Your task to perform on an android device: Is it going to rain this weekend? Image 0: 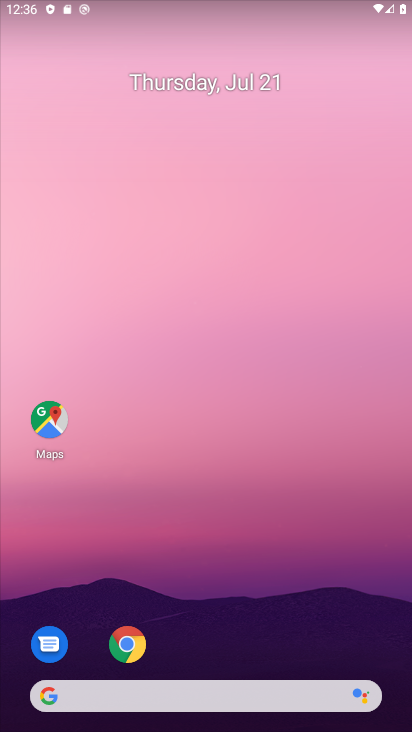
Step 0: drag from (266, 627) to (315, 1)
Your task to perform on an android device: Is it going to rain this weekend? Image 1: 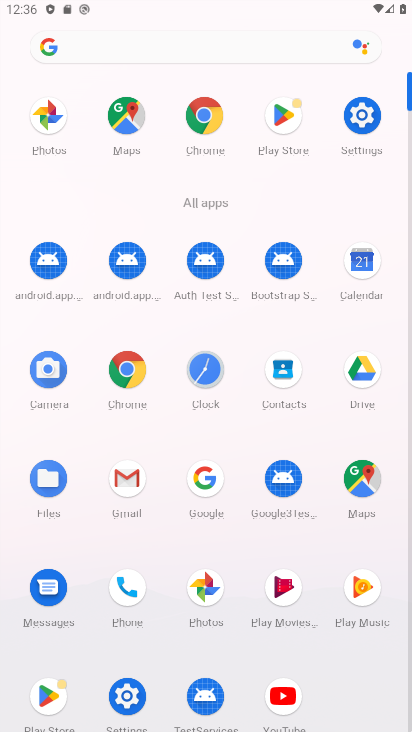
Step 1: click (129, 367)
Your task to perform on an android device: Is it going to rain this weekend? Image 2: 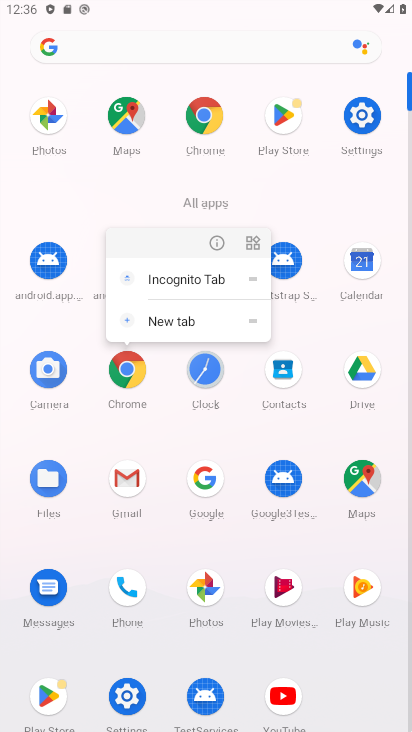
Step 2: click (134, 367)
Your task to perform on an android device: Is it going to rain this weekend? Image 3: 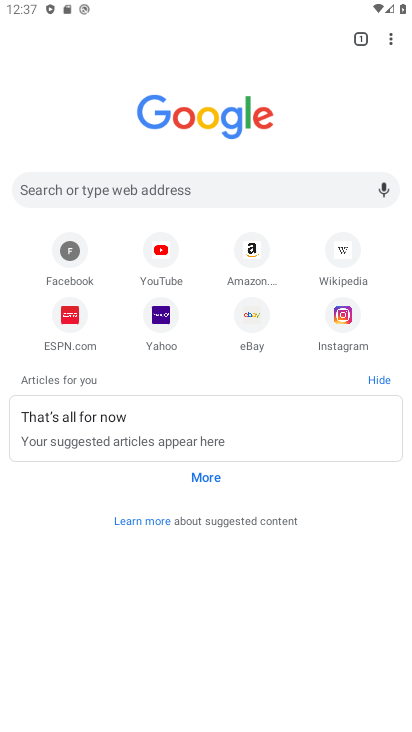
Step 3: click (269, 191)
Your task to perform on an android device: Is it going to rain this weekend? Image 4: 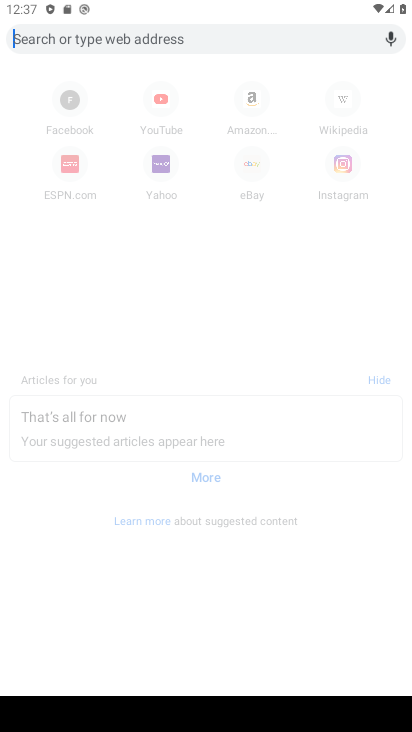
Step 4: type "Is it going to rain this weekend?"
Your task to perform on an android device: Is it going to rain this weekend? Image 5: 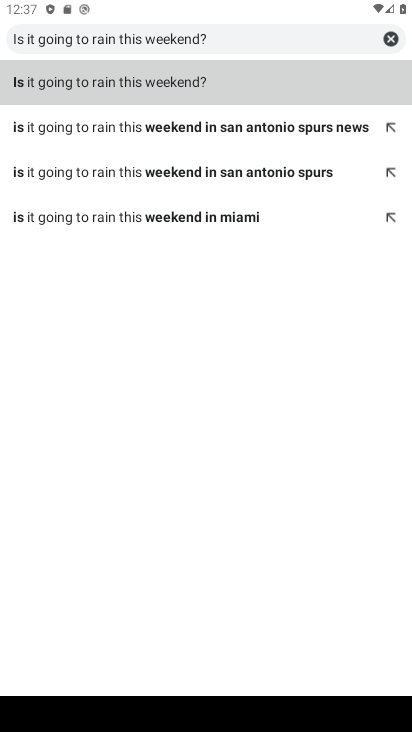
Step 5: click (163, 84)
Your task to perform on an android device: Is it going to rain this weekend? Image 6: 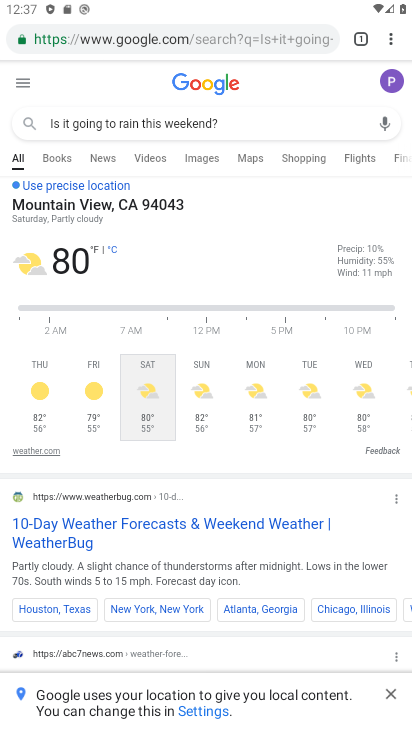
Step 6: task complete